Your task to perform on an android device: Open Yahoo.com Image 0: 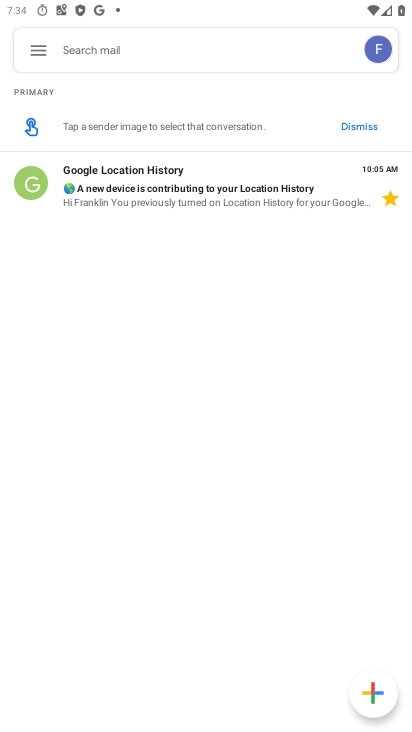
Step 0: press home button
Your task to perform on an android device: Open Yahoo.com Image 1: 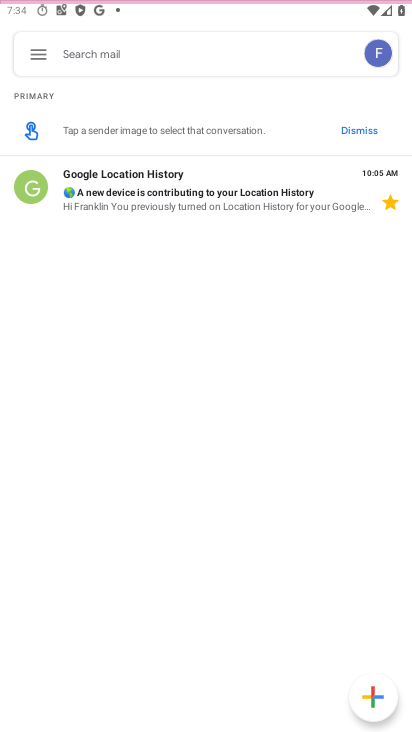
Step 1: drag from (331, 636) to (235, 65)
Your task to perform on an android device: Open Yahoo.com Image 2: 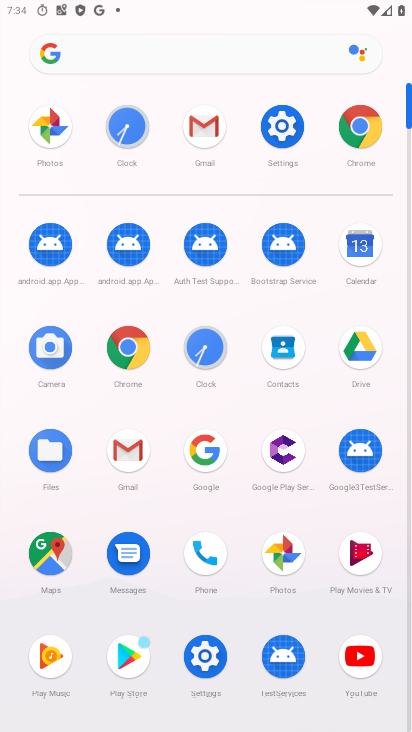
Step 2: click (204, 455)
Your task to perform on an android device: Open Yahoo.com Image 3: 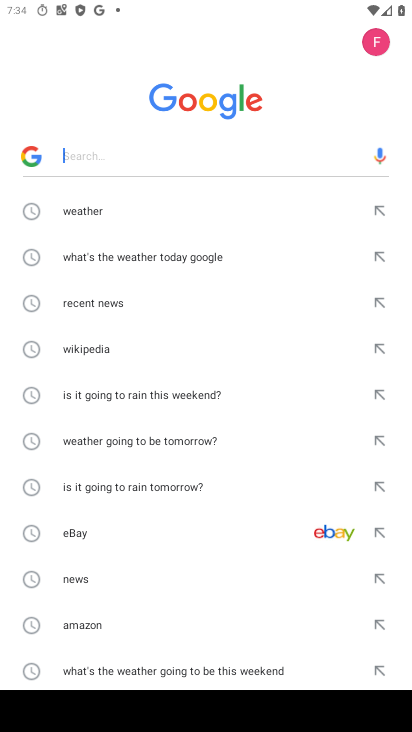
Step 3: type "Yahoo.com"
Your task to perform on an android device: Open Yahoo.com Image 4: 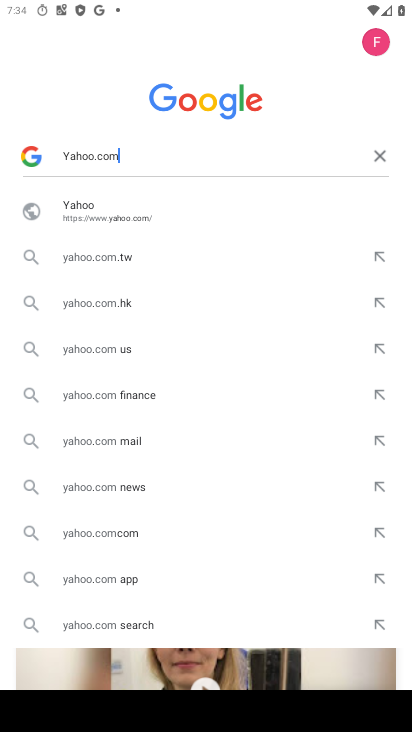
Step 4: click (95, 205)
Your task to perform on an android device: Open Yahoo.com Image 5: 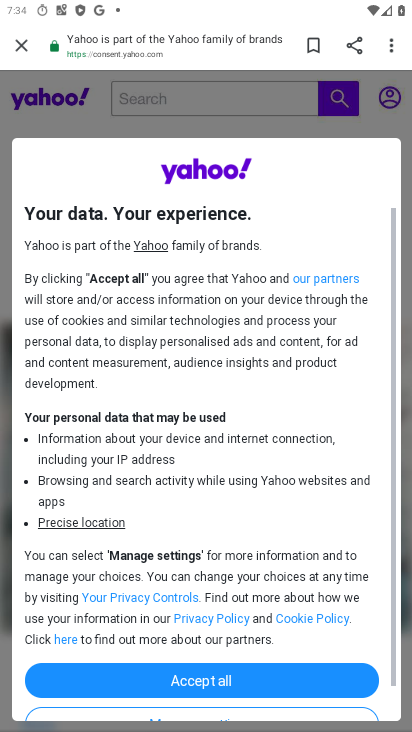
Step 5: task complete